Your task to perform on an android device: Search for a coffee table on Crate & Barrel Image 0: 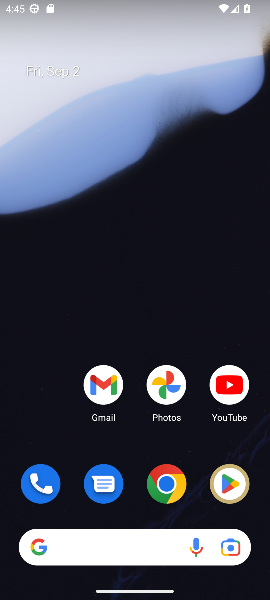
Step 0: click (170, 485)
Your task to perform on an android device: Search for a coffee table on Crate & Barrel Image 1: 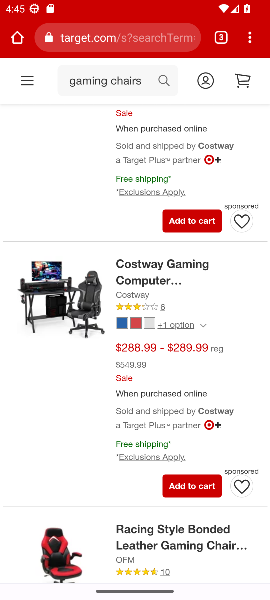
Step 1: click (170, 40)
Your task to perform on an android device: Search for a coffee table on Crate & Barrel Image 2: 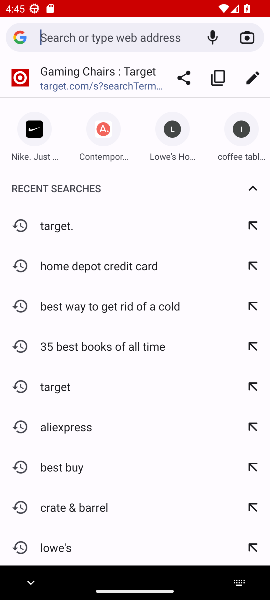
Step 2: type "Crate & Barrel"
Your task to perform on an android device: Search for a coffee table on Crate & Barrel Image 3: 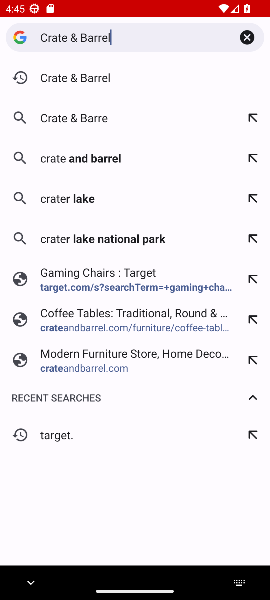
Step 3: press enter
Your task to perform on an android device: Search for a coffee table on Crate & Barrel Image 4: 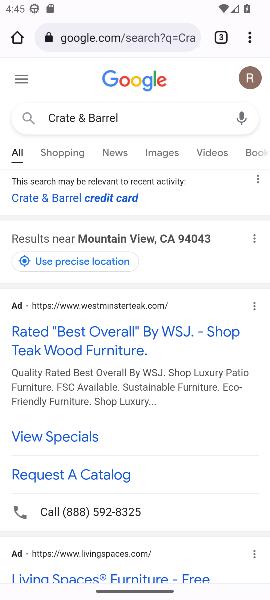
Step 4: drag from (124, 457) to (175, 123)
Your task to perform on an android device: Search for a coffee table on Crate & Barrel Image 5: 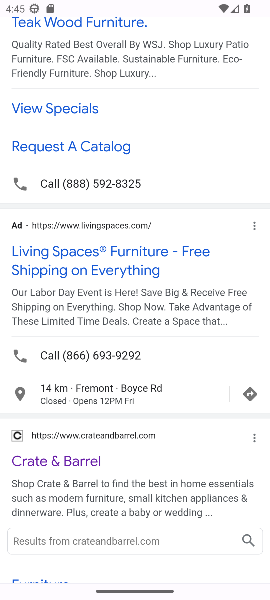
Step 5: click (48, 461)
Your task to perform on an android device: Search for a coffee table on Crate & Barrel Image 6: 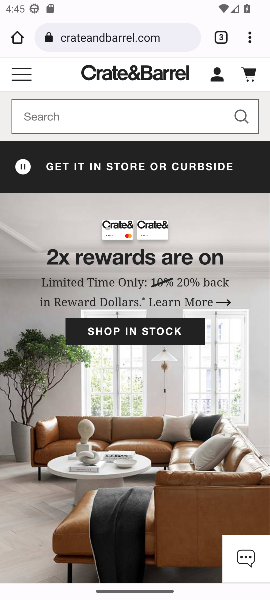
Step 6: click (145, 114)
Your task to perform on an android device: Search for a coffee table on Crate & Barrel Image 7: 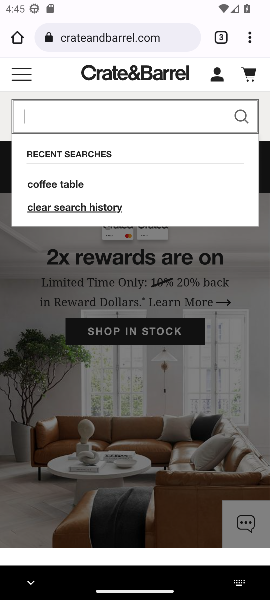
Step 7: click (79, 183)
Your task to perform on an android device: Search for a coffee table on Crate & Barrel Image 8: 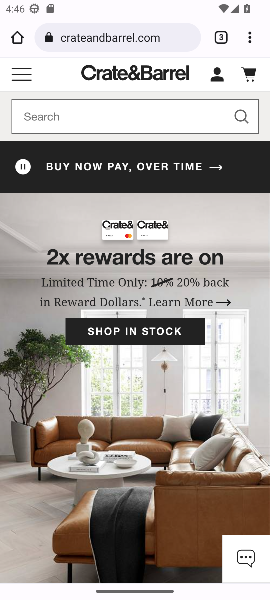
Step 8: click (142, 120)
Your task to perform on an android device: Search for a coffee table on Crate & Barrel Image 9: 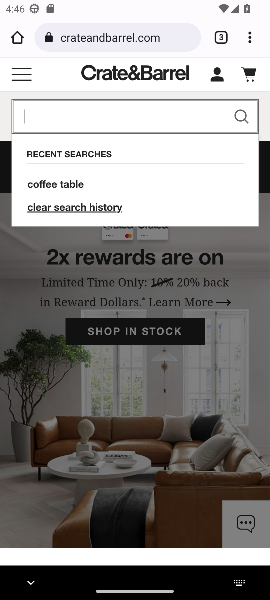
Step 9: click (55, 185)
Your task to perform on an android device: Search for a coffee table on Crate & Barrel Image 10: 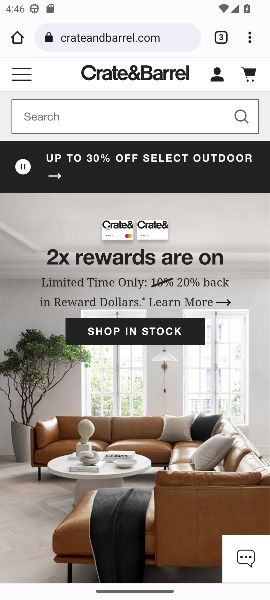
Step 10: drag from (124, 391) to (141, 560)
Your task to perform on an android device: Search for a coffee table on Crate & Barrel Image 11: 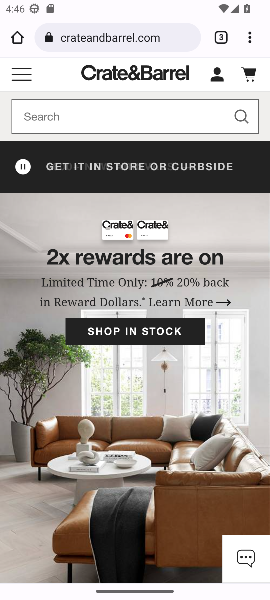
Step 11: click (183, 119)
Your task to perform on an android device: Search for a coffee table on Crate & Barrel Image 12: 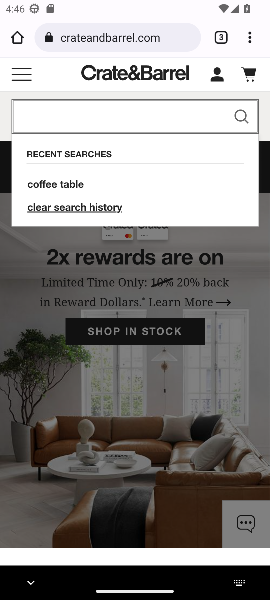
Step 12: type " coffee table"
Your task to perform on an android device: Search for a coffee table on Crate & Barrel Image 13: 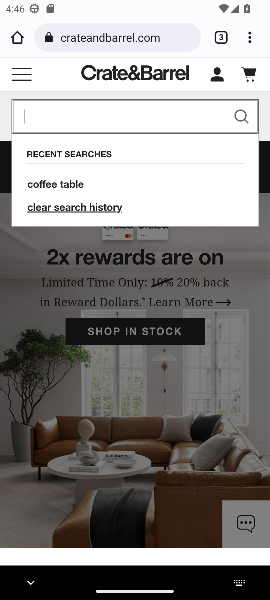
Step 13: press enter
Your task to perform on an android device: Search for a coffee table on Crate & Barrel Image 14: 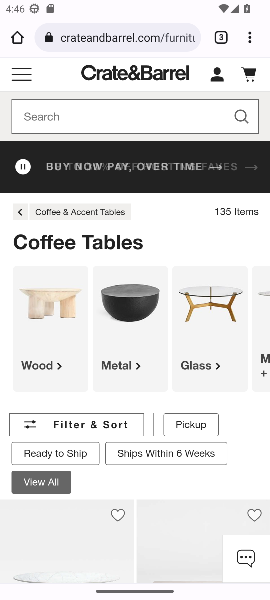
Step 14: task complete